Your task to perform on an android device: turn off smart reply in the gmail app Image 0: 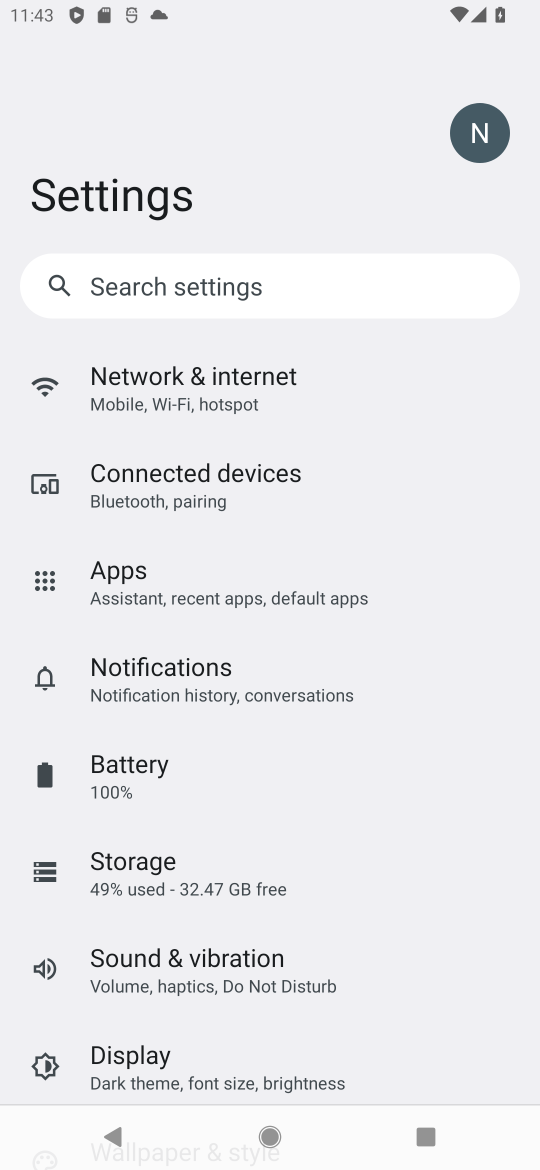
Step 0: press home button
Your task to perform on an android device: turn off smart reply in the gmail app Image 1: 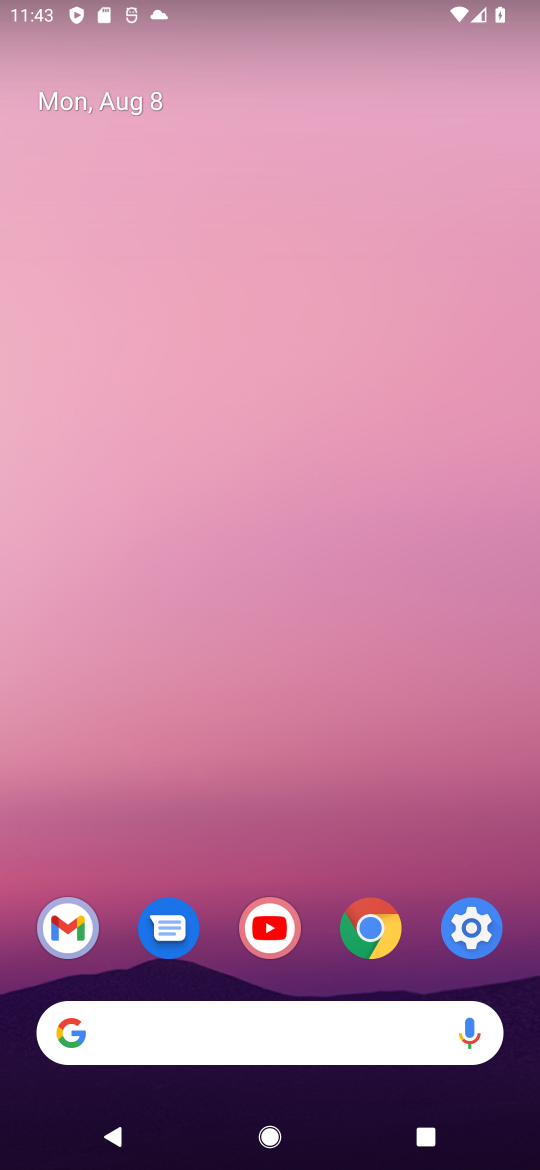
Step 1: click (75, 945)
Your task to perform on an android device: turn off smart reply in the gmail app Image 2: 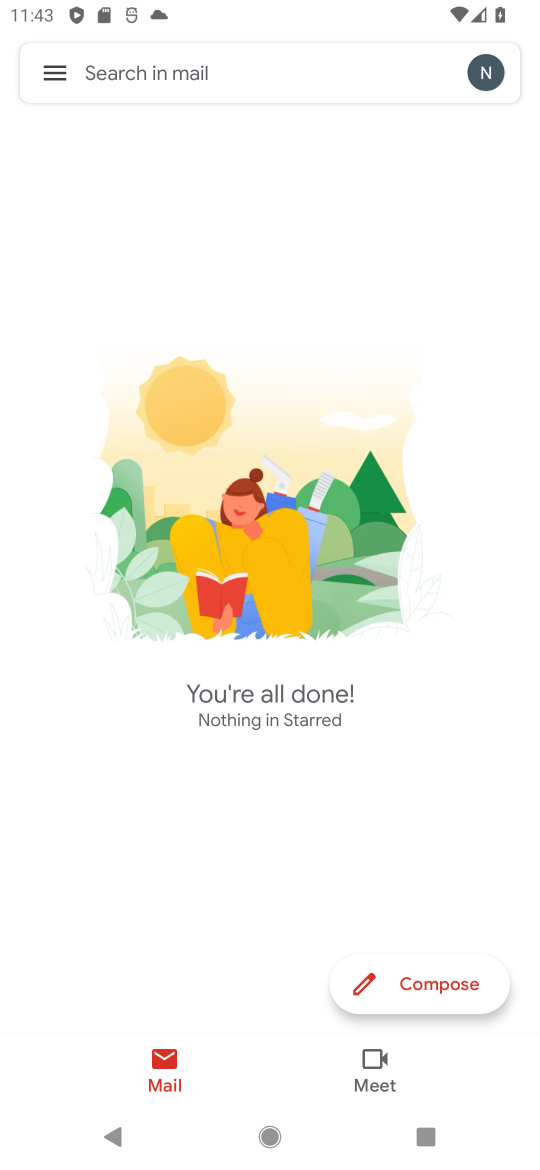
Step 2: click (62, 84)
Your task to perform on an android device: turn off smart reply in the gmail app Image 3: 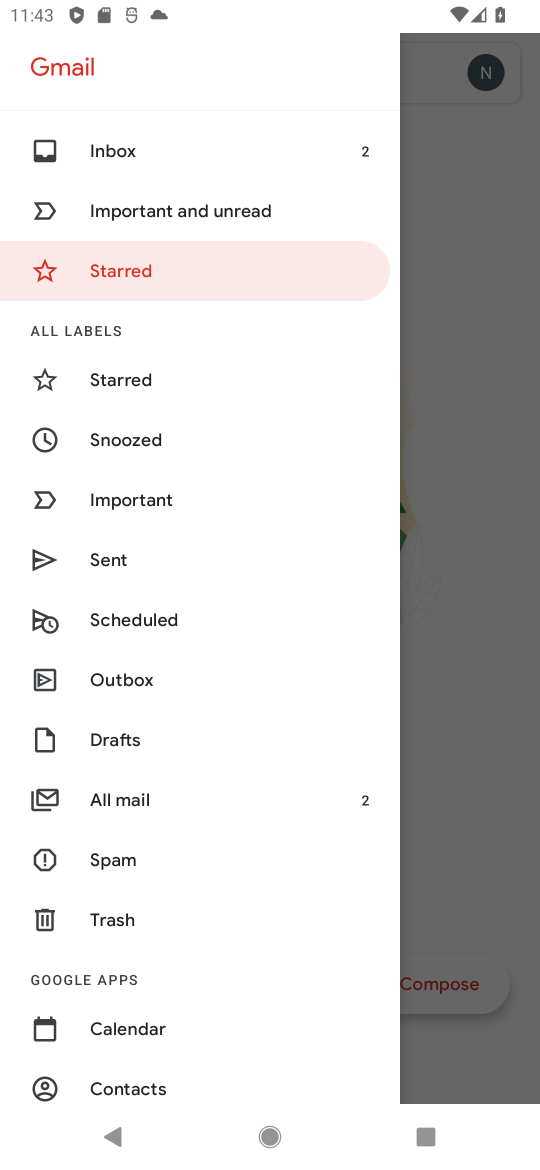
Step 3: drag from (191, 1014) to (222, 862)
Your task to perform on an android device: turn off smart reply in the gmail app Image 4: 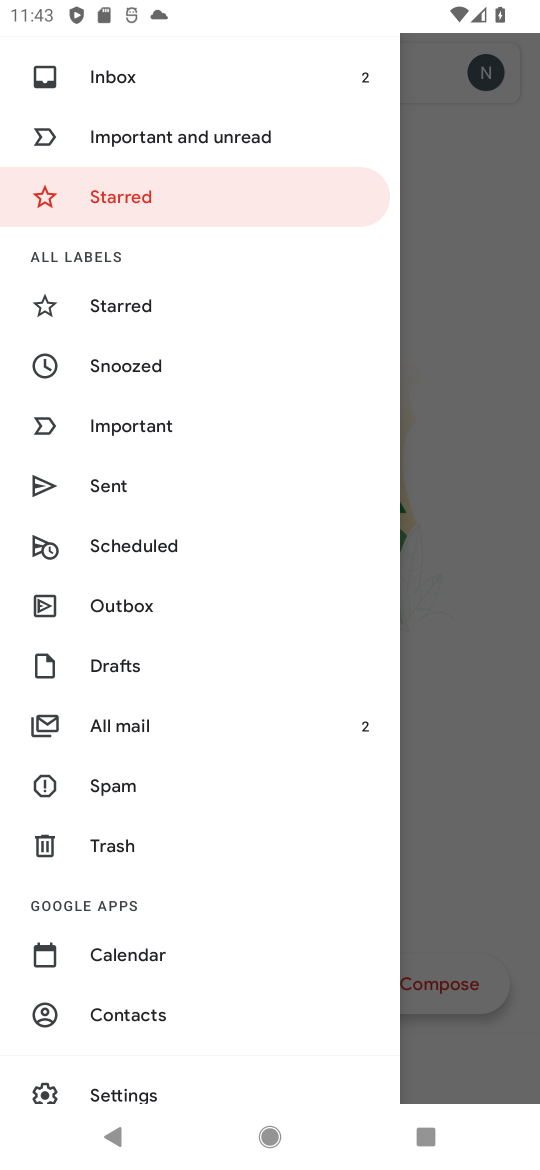
Step 4: click (136, 1093)
Your task to perform on an android device: turn off smart reply in the gmail app Image 5: 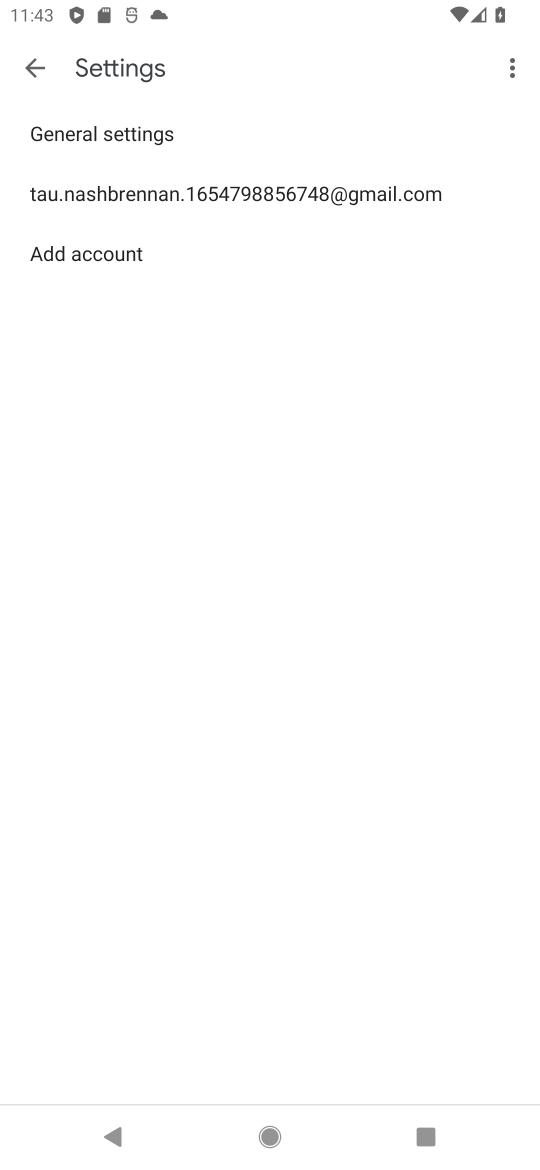
Step 5: click (175, 192)
Your task to perform on an android device: turn off smart reply in the gmail app Image 6: 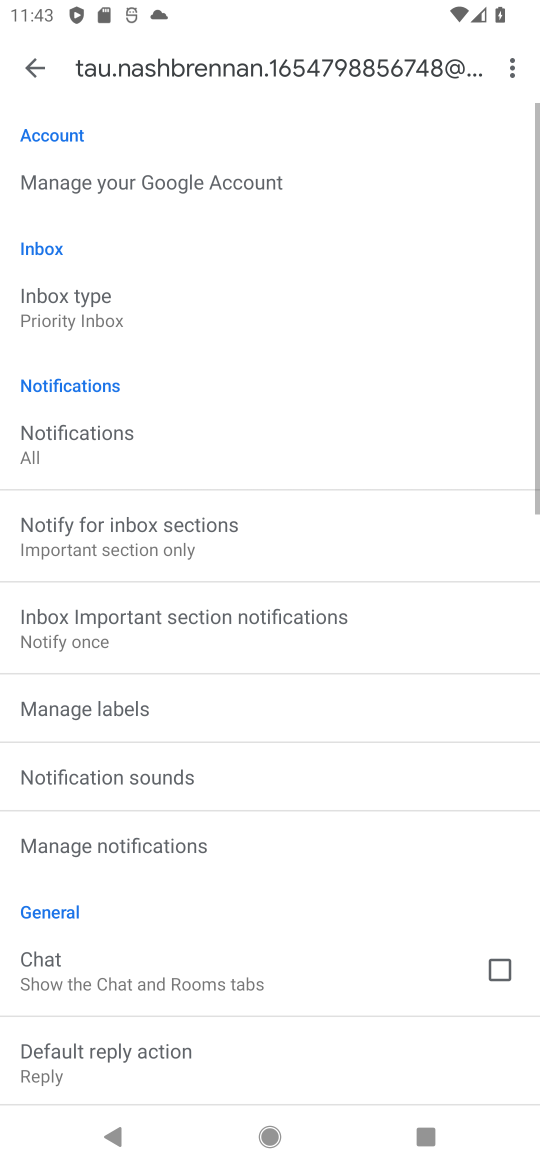
Step 6: drag from (309, 888) to (362, 359)
Your task to perform on an android device: turn off smart reply in the gmail app Image 7: 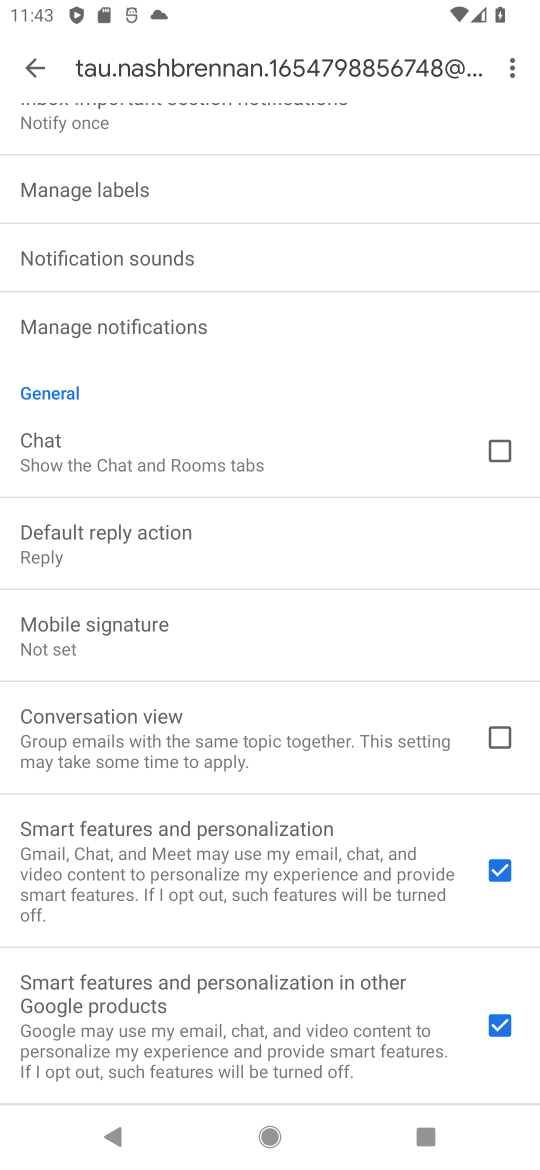
Step 7: drag from (416, 998) to (419, 835)
Your task to perform on an android device: turn off smart reply in the gmail app Image 8: 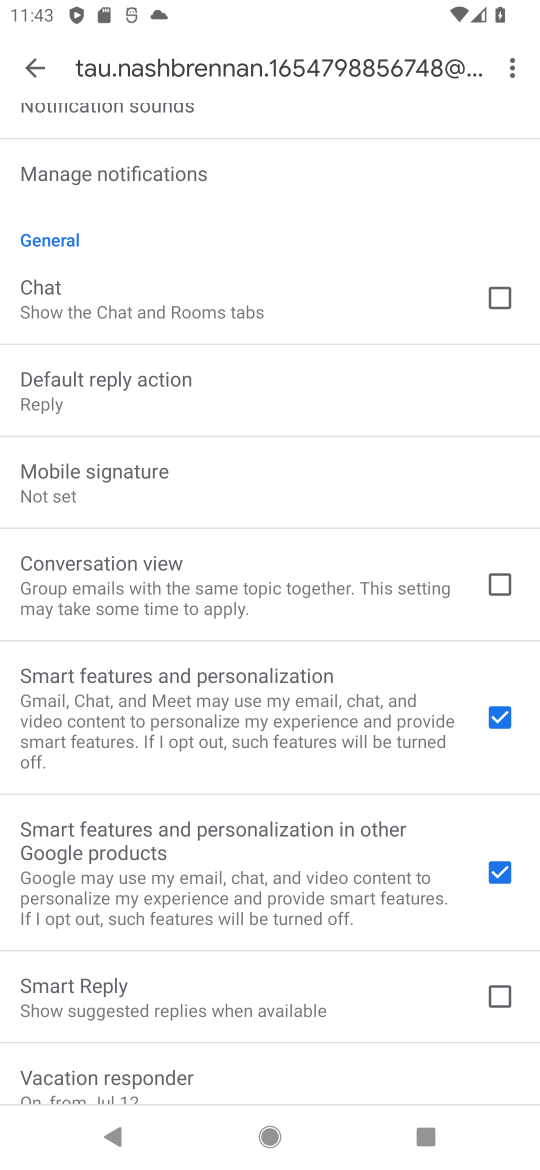
Step 8: click (493, 985)
Your task to perform on an android device: turn off smart reply in the gmail app Image 9: 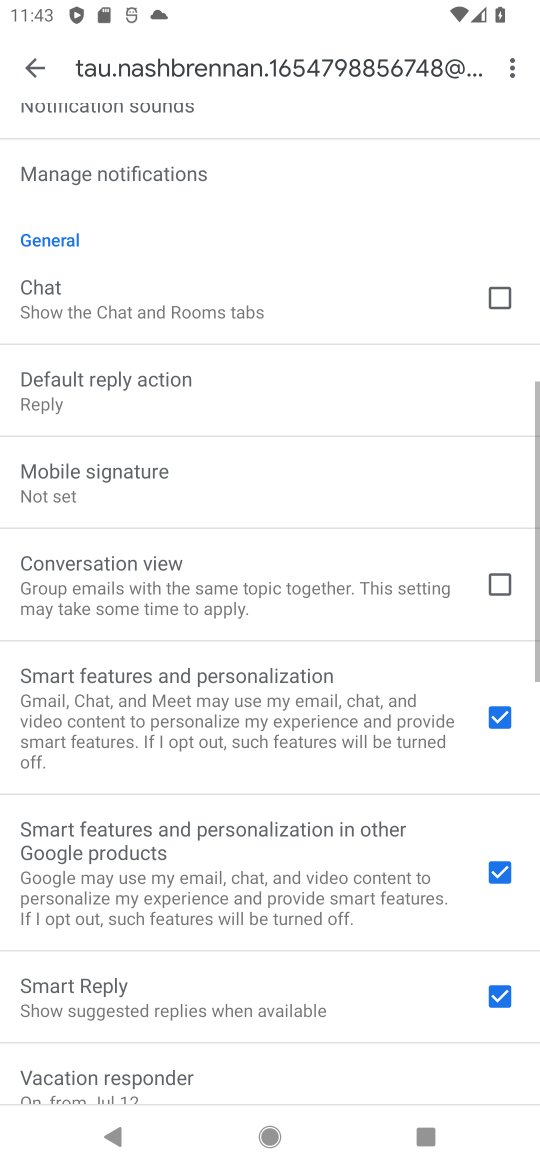
Step 9: click (493, 985)
Your task to perform on an android device: turn off smart reply in the gmail app Image 10: 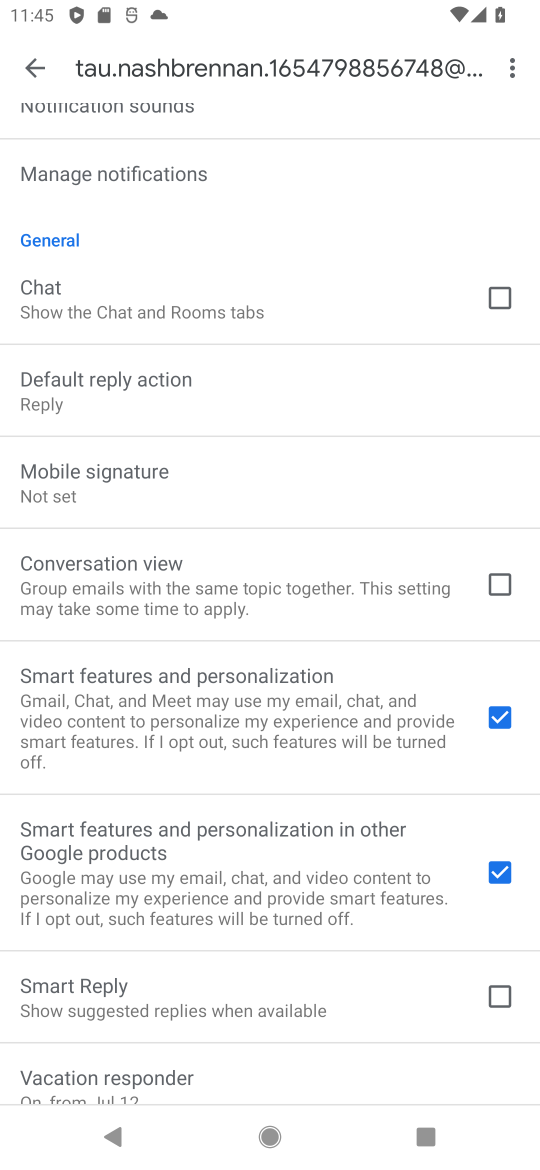
Step 10: task complete